Your task to perform on an android device: Show the shopping cart on walmart.com. Search for asus zenbook on walmart.com, select the first entry, add it to the cart, then select checkout. Image 0: 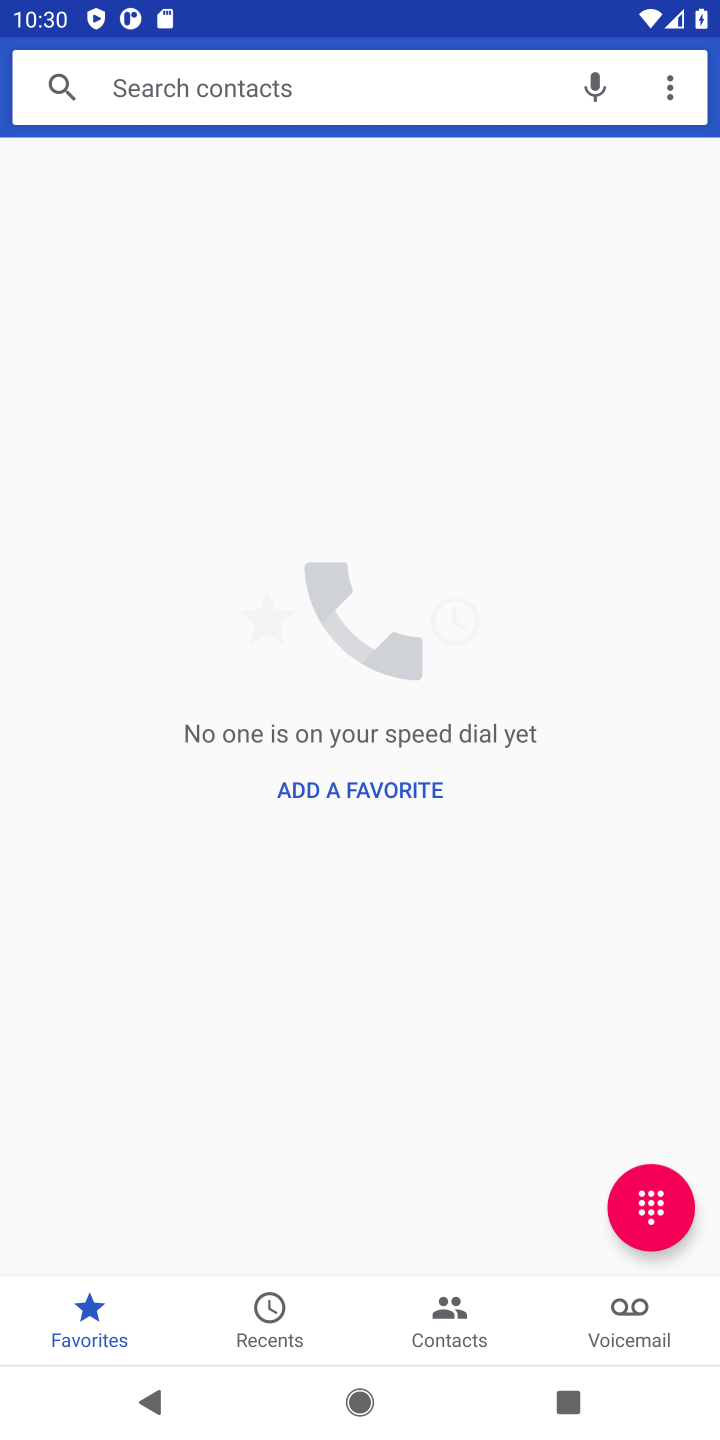
Step 0: press home button
Your task to perform on an android device: Show the shopping cart on walmart.com. Search for asus zenbook on walmart.com, select the first entry, add it to the cart, then select checkout. Image 1: 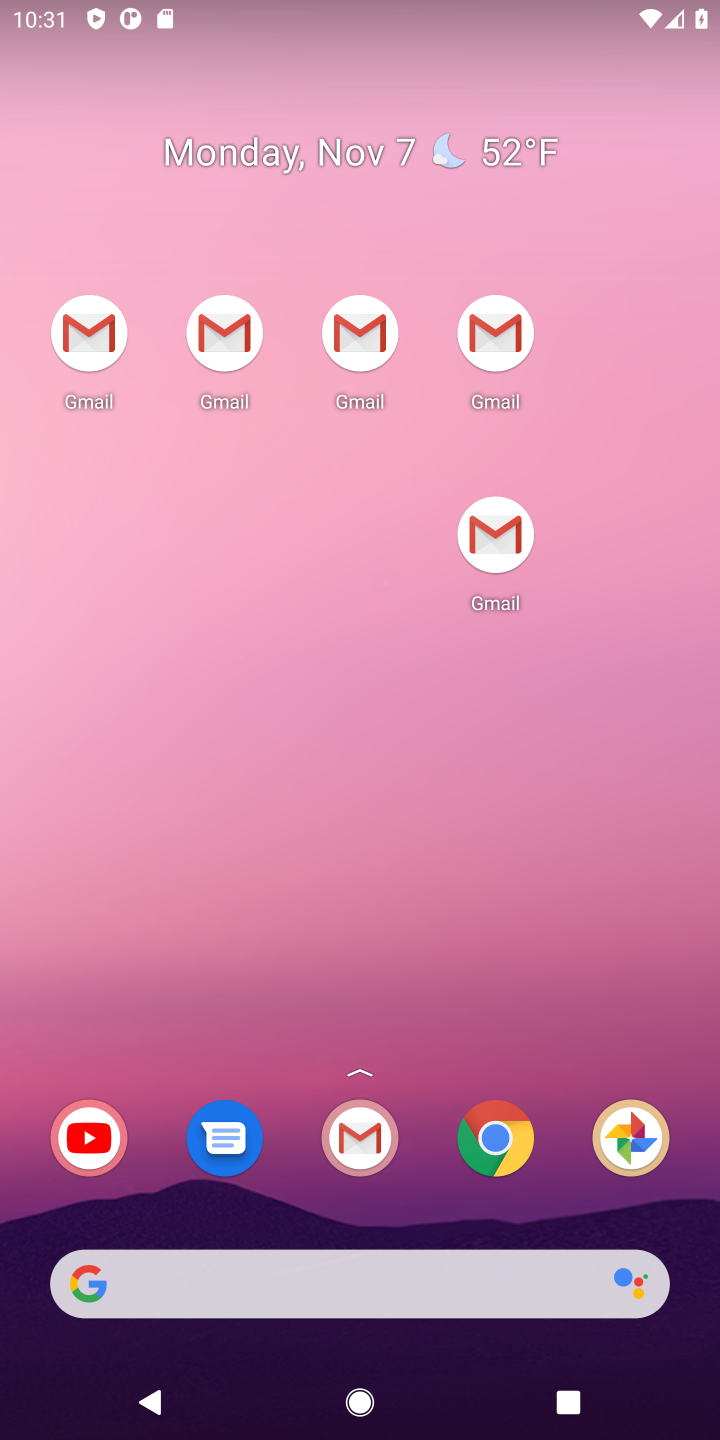
Step 1: drag from (340, 650) to (457, 14)
Your task to perform on an android device: Show the shopping cart on walmart.com. Search for asus zenbook on walmart.com, select the first entry, add it to the cart, then select checkout. Image 2: 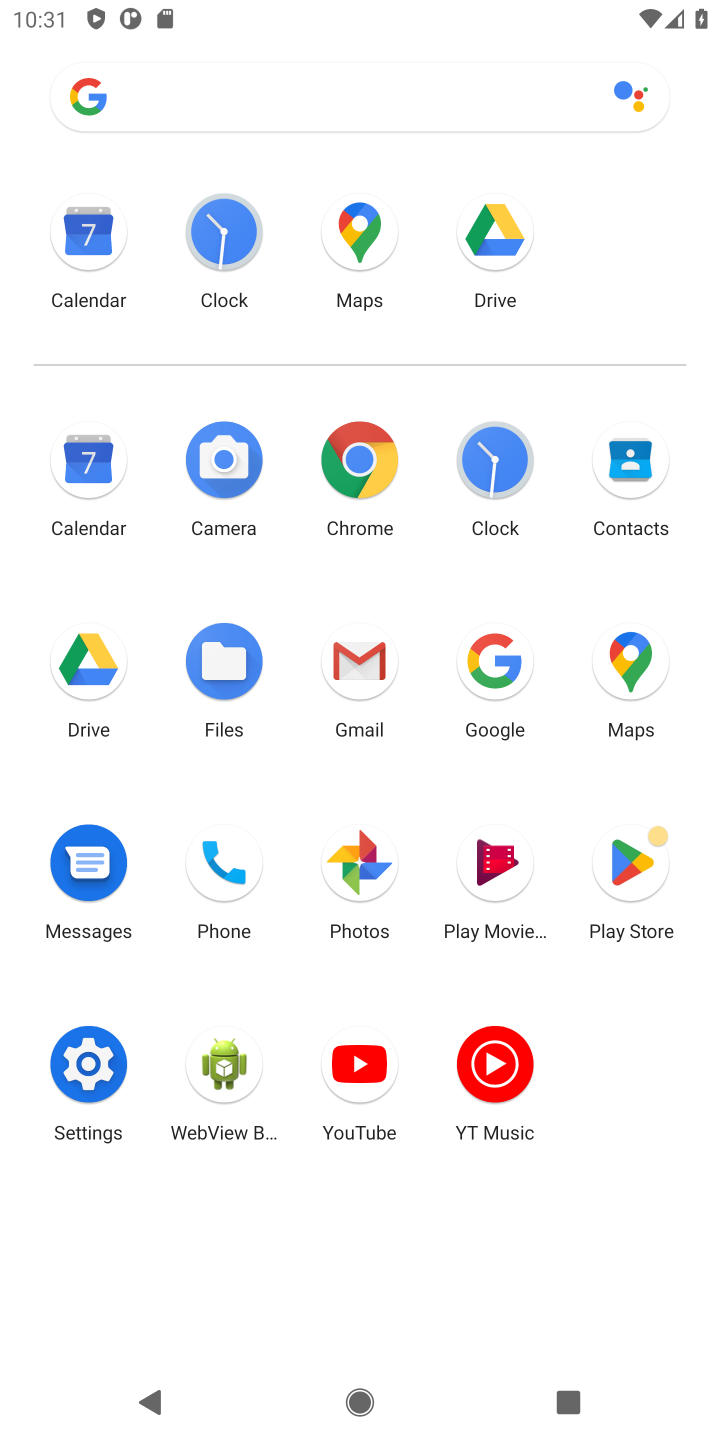
Step 2: click (488, 690)
Your task to perform on an android device: Show the shopping cart on walmart.com. Search for asus zenbook on walmart.com, select the first entry, add it to the cart, then select checkout. Image 3: 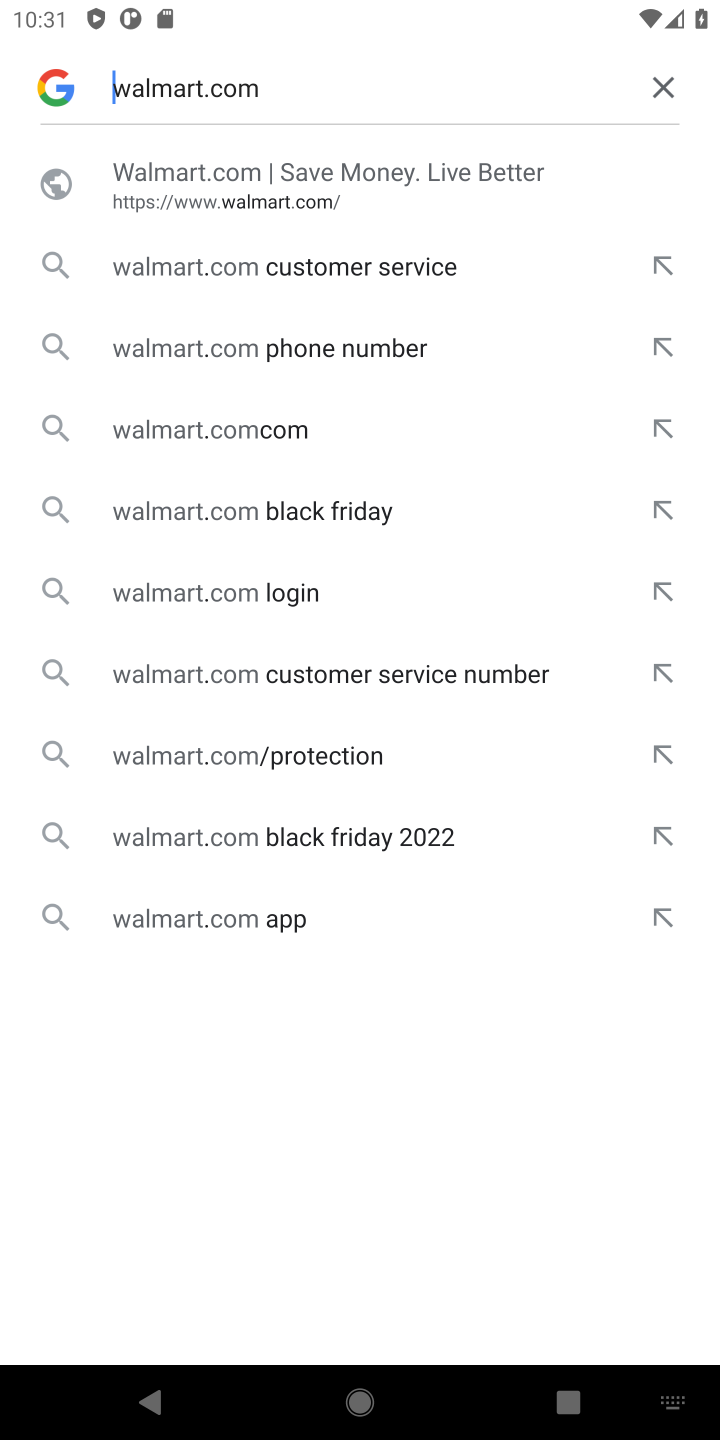
Step 3: click (651, 90)
Your task to perform on an android device: Show the shopping cart on walmart.com. Search for asus zenbook on walmart.com, select the first entry, add it to the cart, then select checkout. Image 4: 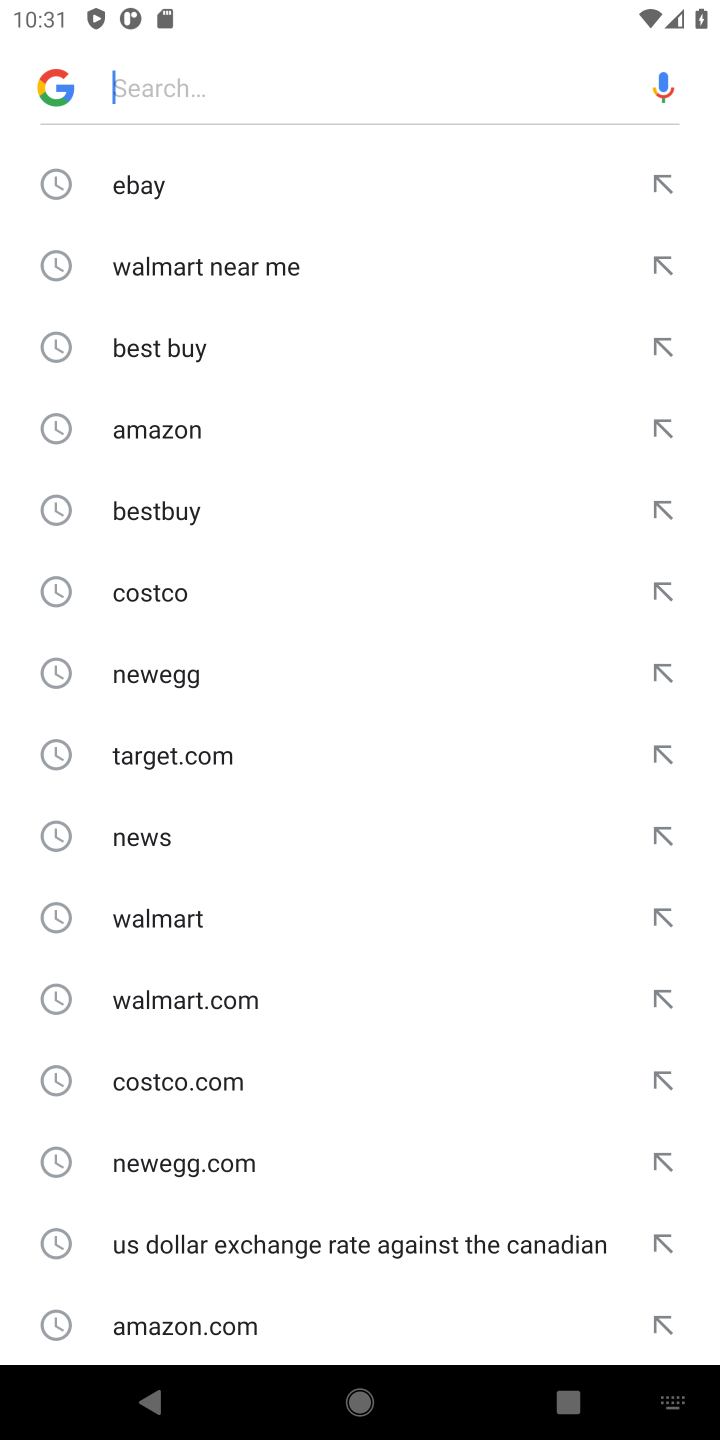
Step 4: type "walmart.com"
Your task to perform on an android device: Show the shopping cart on walmart.com. Search for asus zenbook on walmart.com, select the first entry, add it to the cart, then select checkout. Image 5: 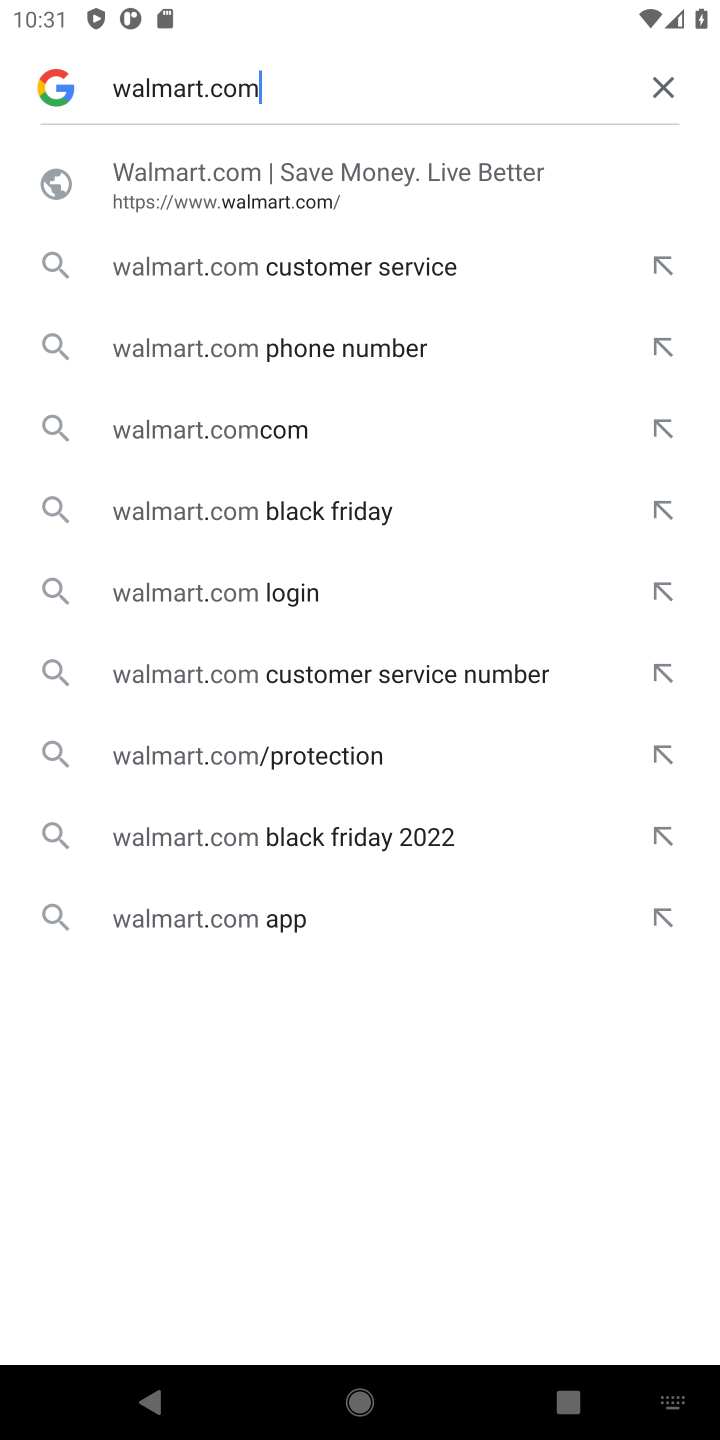
Step 5: click (266, 197)
Your task to perform on an android device: Show the shopping cart on walmart.com. Search for asus zenbook on walmart.com, select the first entry, add it to the cart, then select checkout. Image 6: 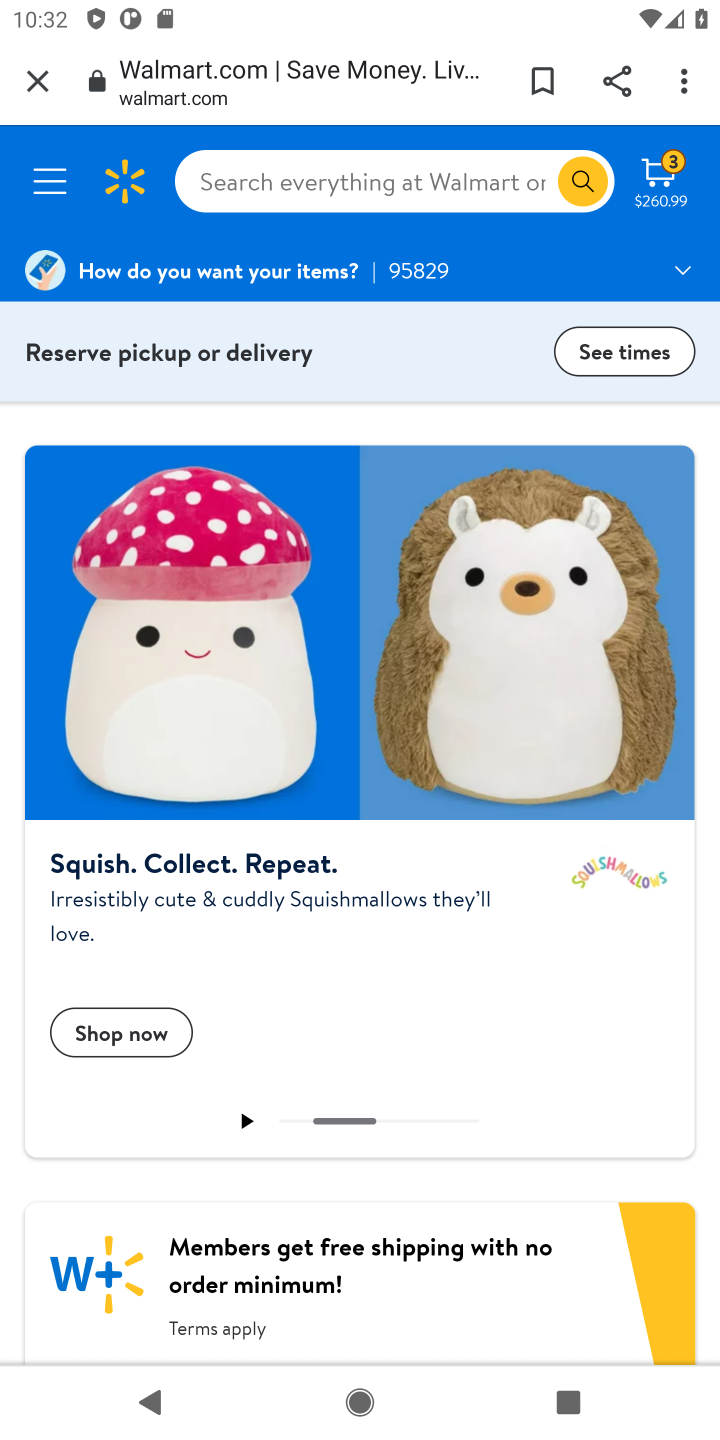
Step 6: click (477, 195)
Your task to perform on an android device: Show the shopping cart on walmart.com. Search for asus zenbook on walmart.com, select the first entry, add it to the cart, then select checkout. Image 7: 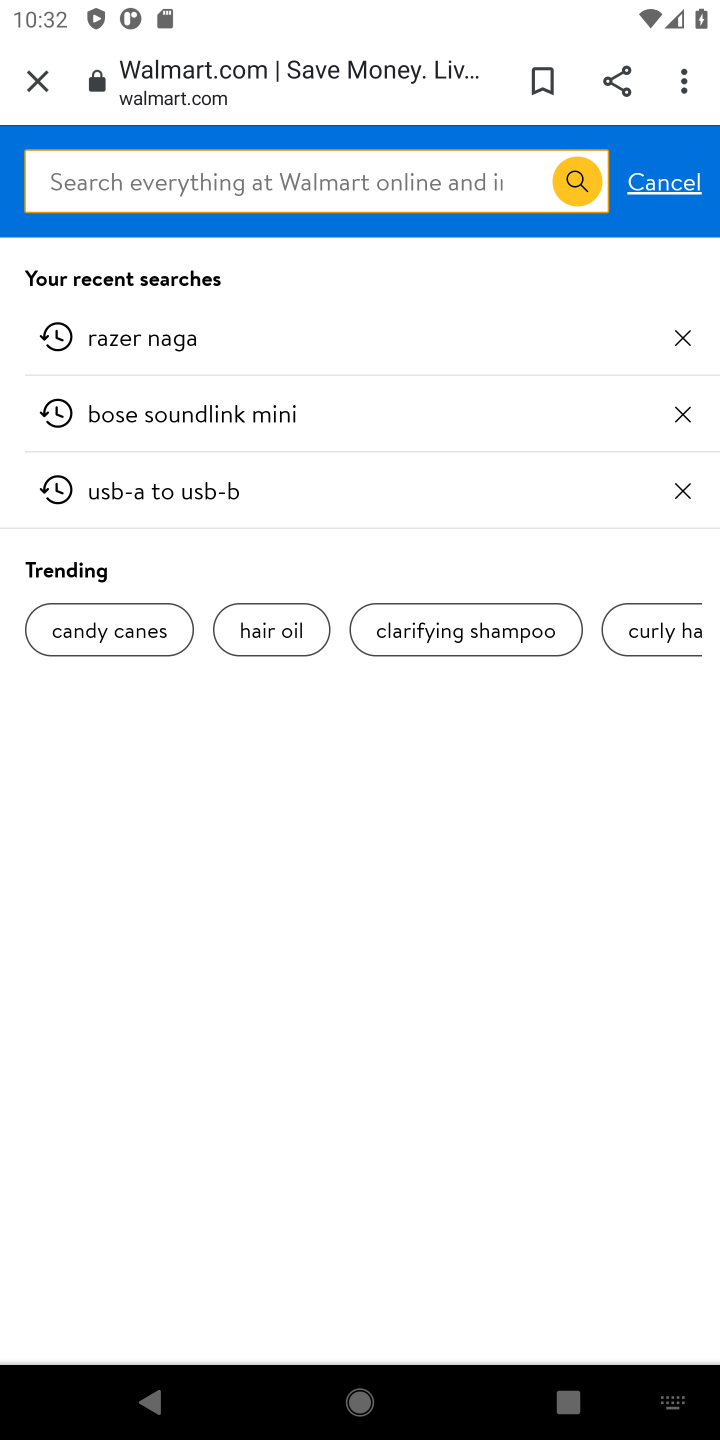
Step 7: type "asus zenbook"
Your task to perform on an android device: Show the shopping cart on walmart.com. Search for asus zenbook on walmart.com, select the first entry, add it to the cart, then select checkout. Image 8: 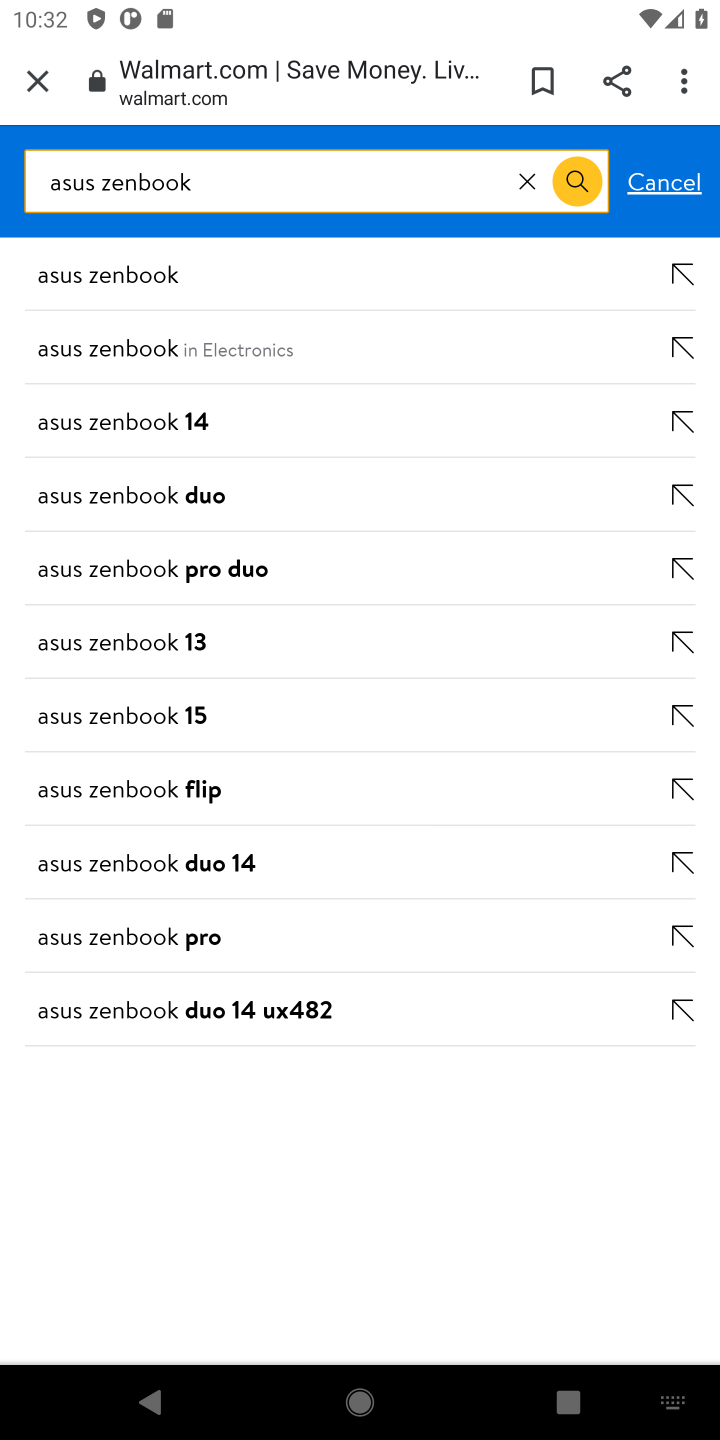
Step 8: click (235, 276)
Your task to perform on an android device: Show the shopping cart on walmart.com. Search for asus zenbook on walmart.com, select the first entry, add it to the cart, then select checkout. Image 9: 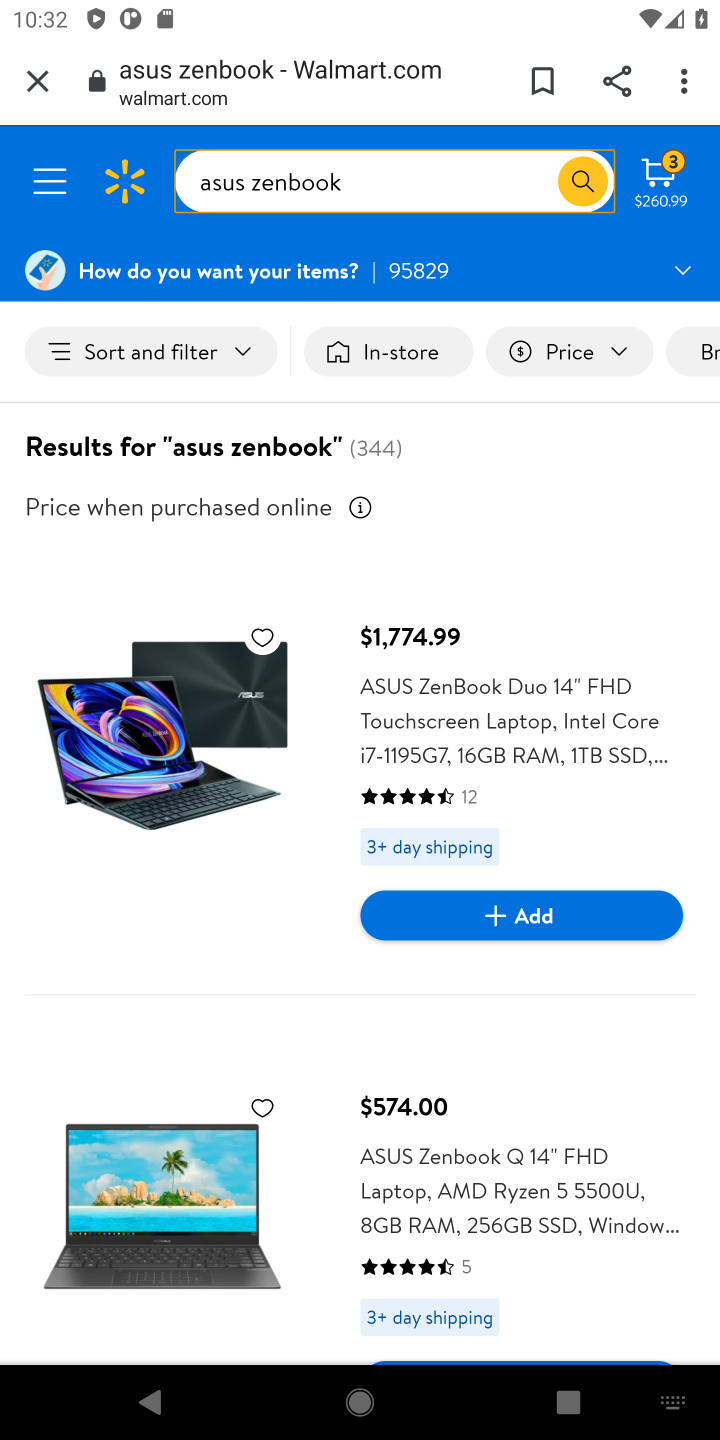
Step 9: click (558, 895)
Your task to perform on an android device: Show the shopping cart on walmart.com. Search for asus zenbook on walmart.com, select the first entry, add it to the cart, then select checkout. Image 10: 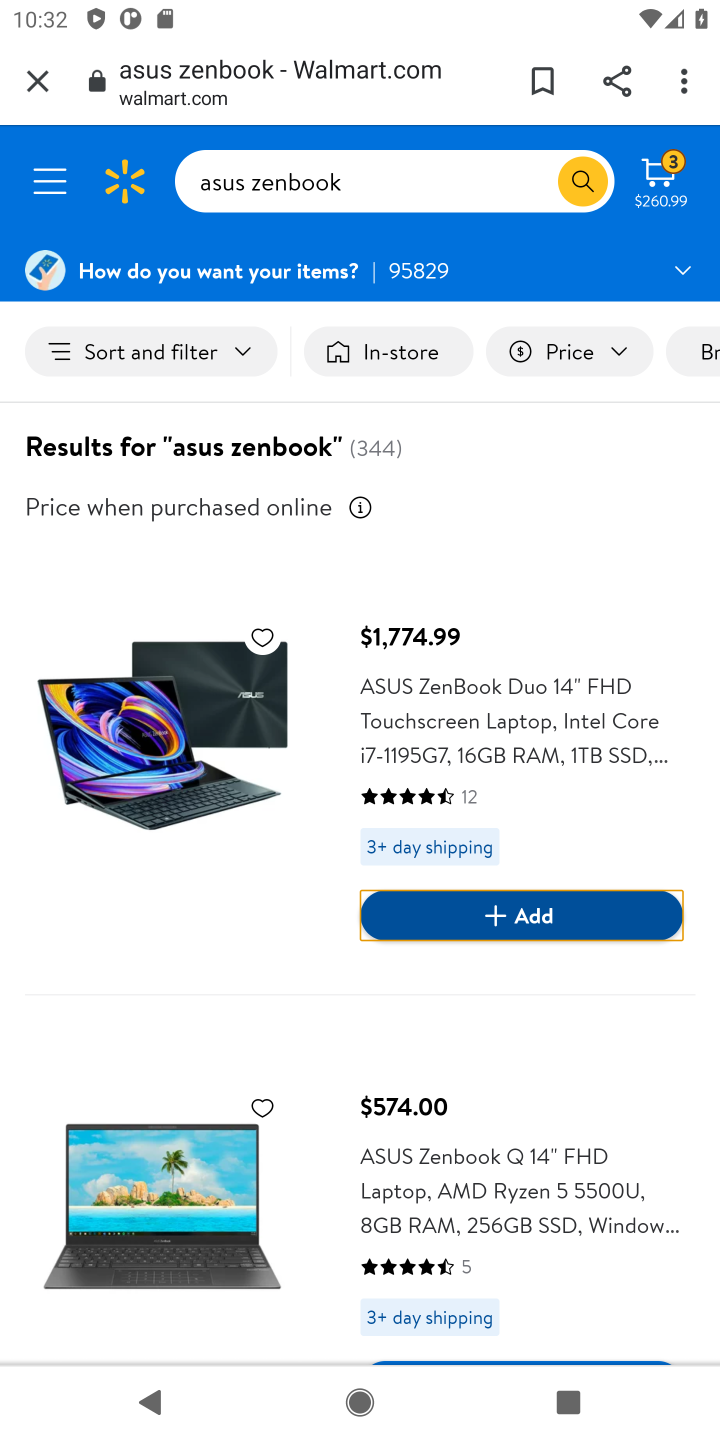
Step 10: click (539, 914)
Your task to perform on an android device: Show the shopping cart on walmart.com. Search for asus zenbook on walmart.com, select the first entry, add it to the cart, then select checkout. Image 11: 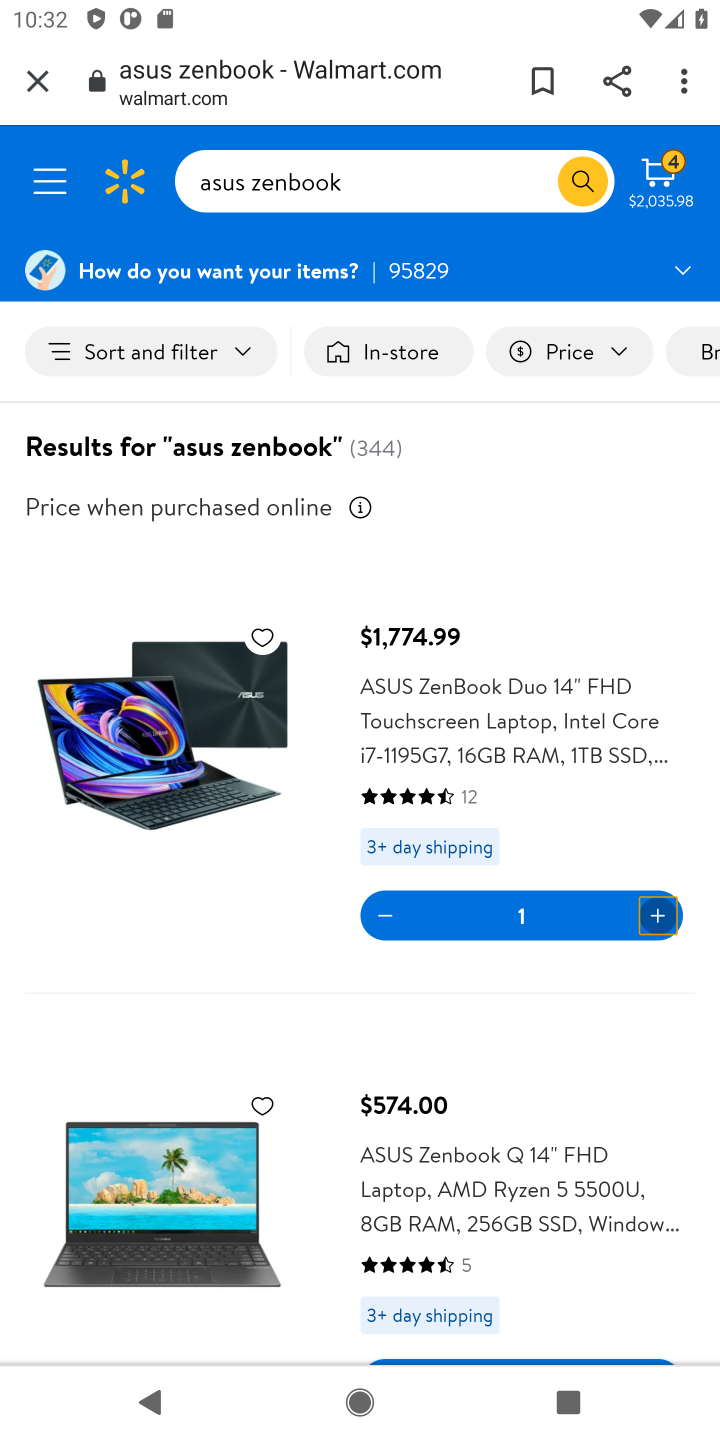
Step 11: click (687, 177)
Your task to perform on an android device: Show the shopping cart on walmart.com. Search for asus zenbook on walmart.com, select the first entry, add it to the cart, then select checkout. Image 12: 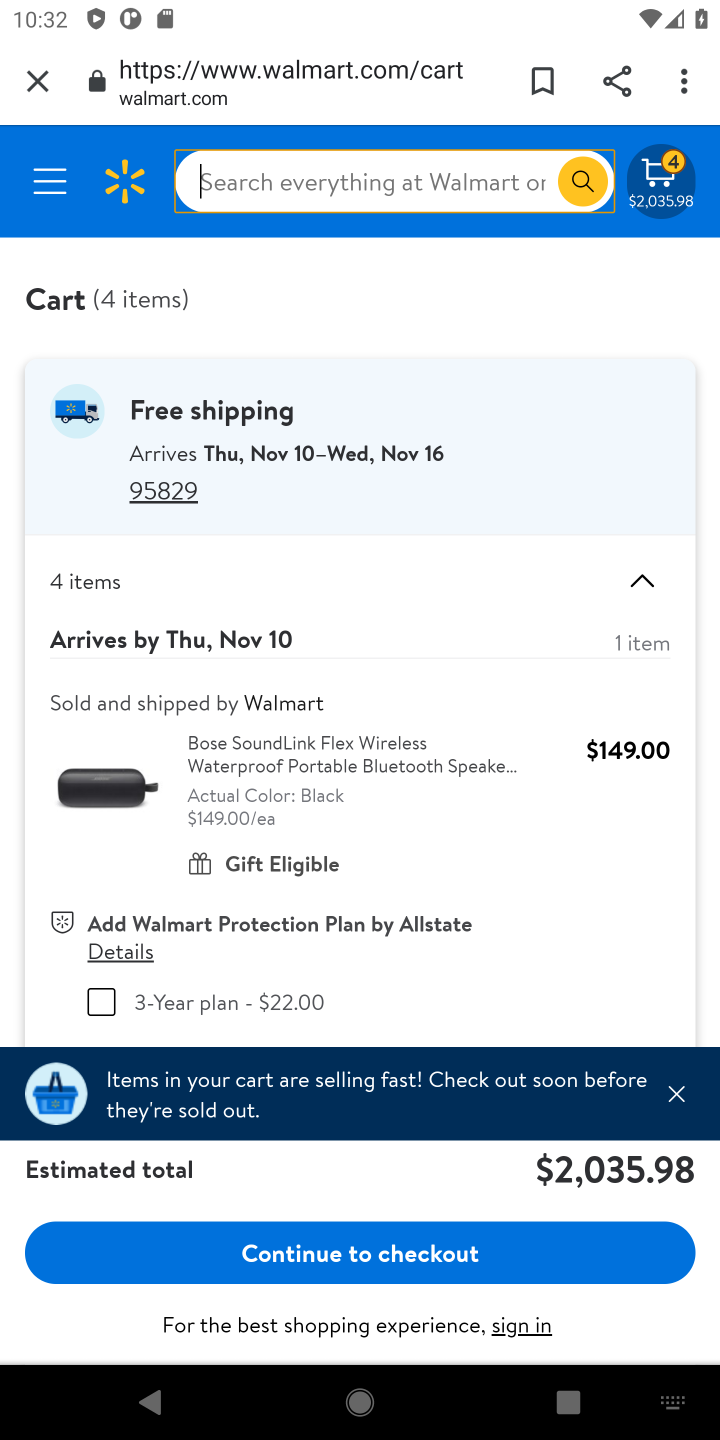
Step 12: click (436, 1260)
Your task to perform on an android device: Show the shopping cart on walmart.com. Search for asus zenbook on walmart.com, select the first entry, add it to the cart, then select checkout. Image 13: 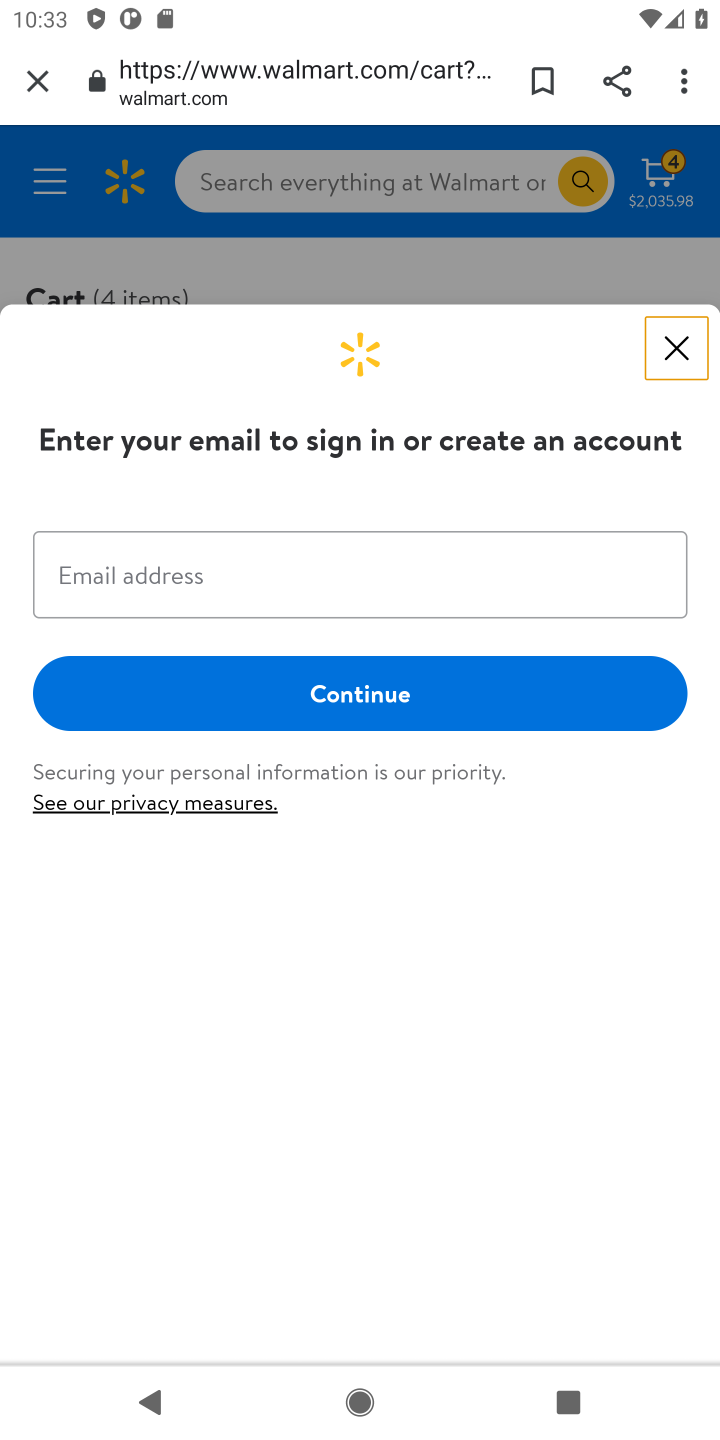
Step 13: task complete